Your task to perform on an android device: change keyboard looks Image 0: 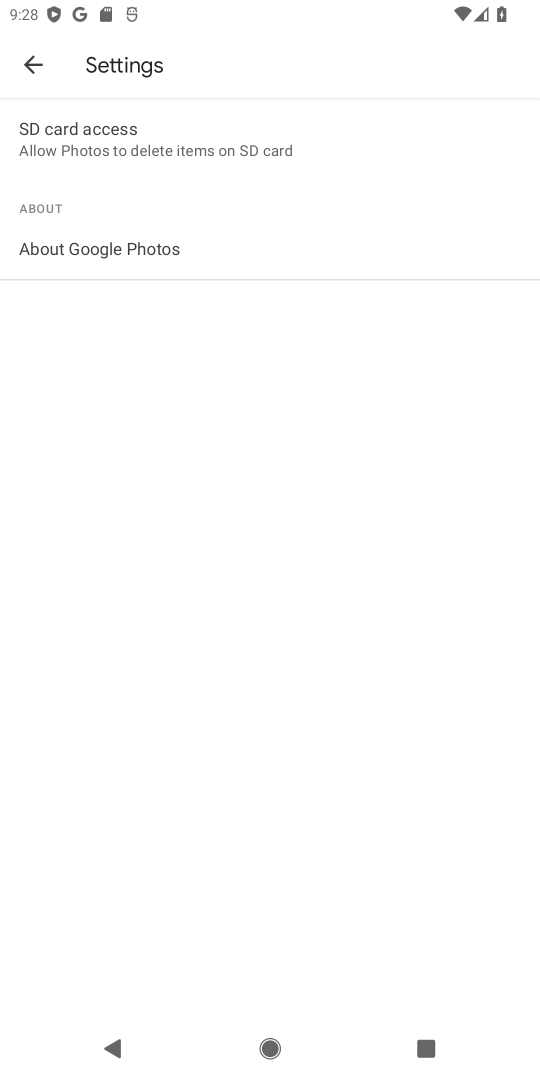
Step 0: press home button
Your task to perform on an android device: change keyboard looks Image 1: 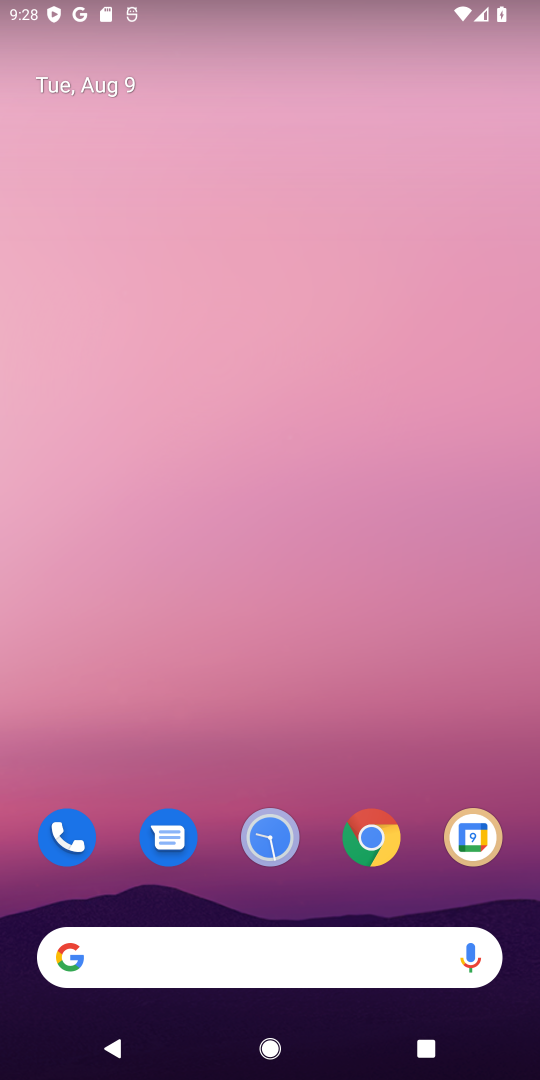
Step 1: drag from (298, 900) to (202, 97)
Your task to perform on an android device: change keyboard looks Image 2: 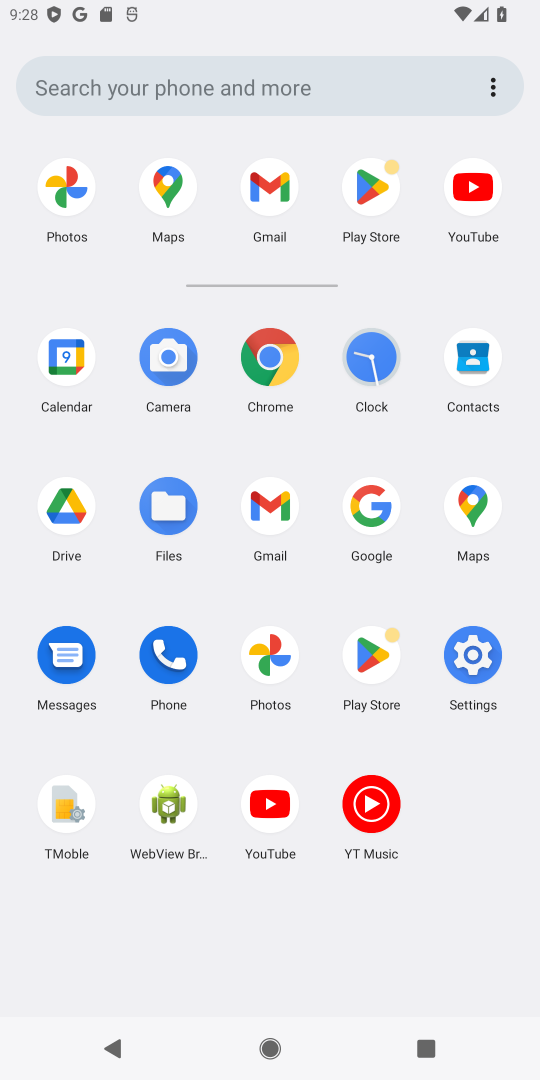
Step 2: click (466, 655)
Your task to perform on an android device: change keyboard looks Image 3: 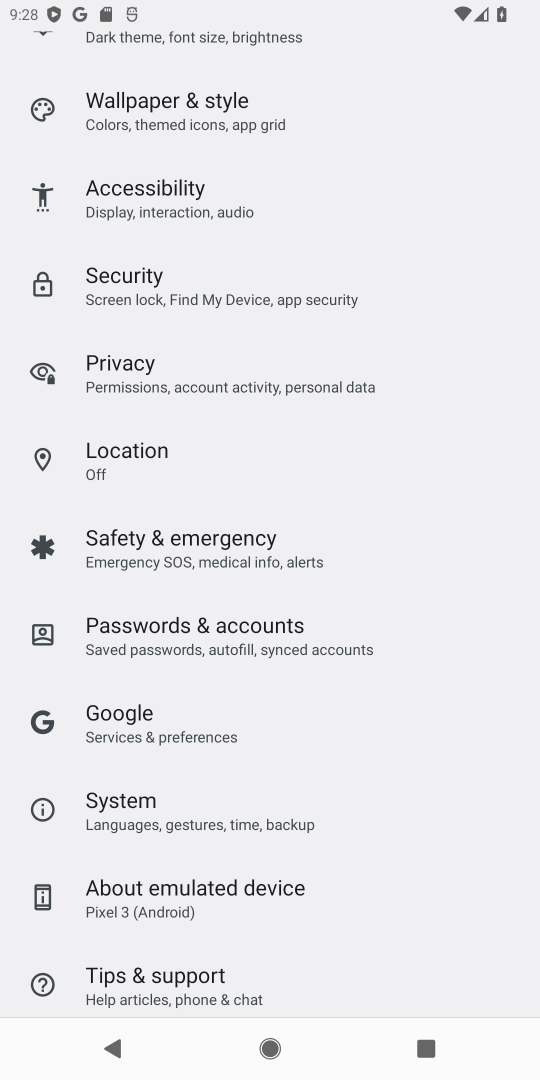
Step 3: drag from (185, 874) to (185, 537)
Your task to perform on an android device: change keyboard looks Image 4: 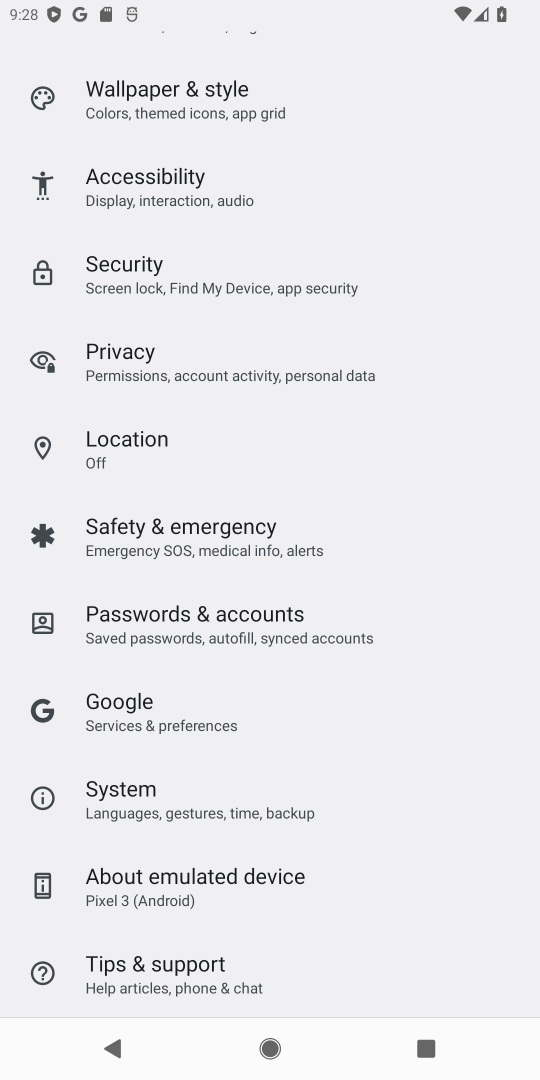
Step 4: click (147, 790)
Your task to perform on an android device: change keyboard looks Image 5: 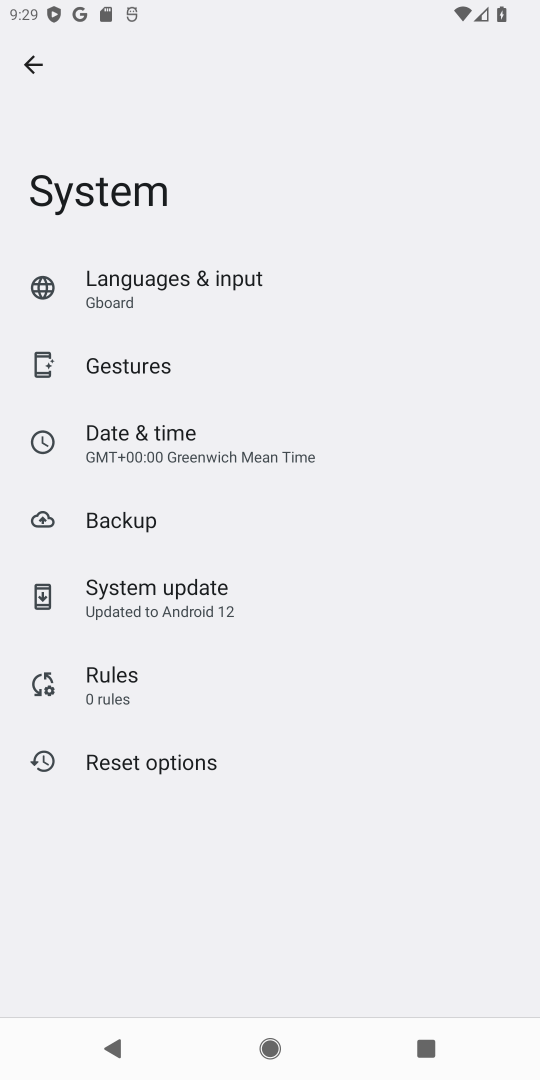
Step 5: click (99, 278)
Your task to perform on an android device: change keyboard looks Image 6: 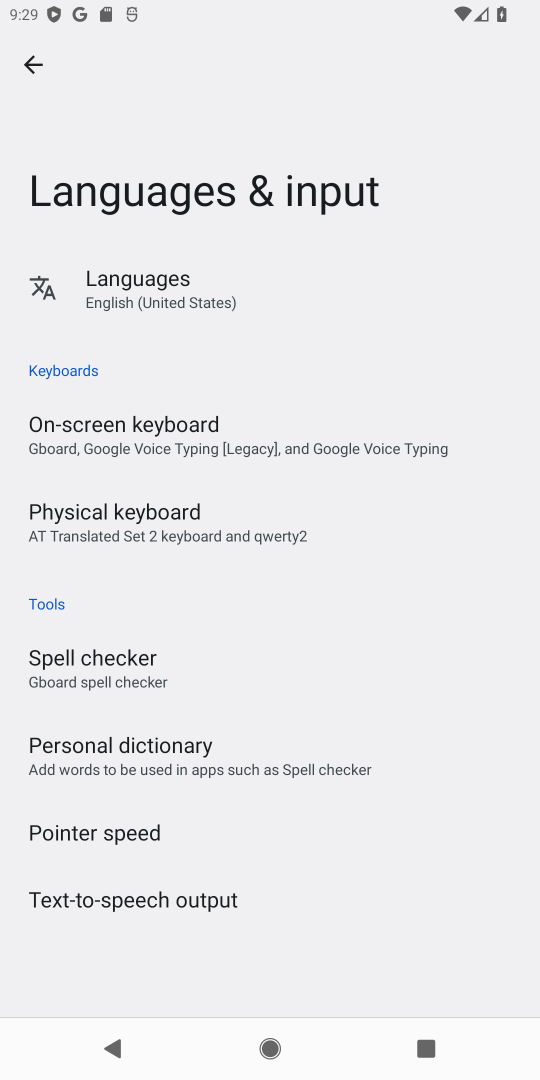
Step 6: click (119, 438)
Your task to perform on an android device: change keyboard looks Image 7: 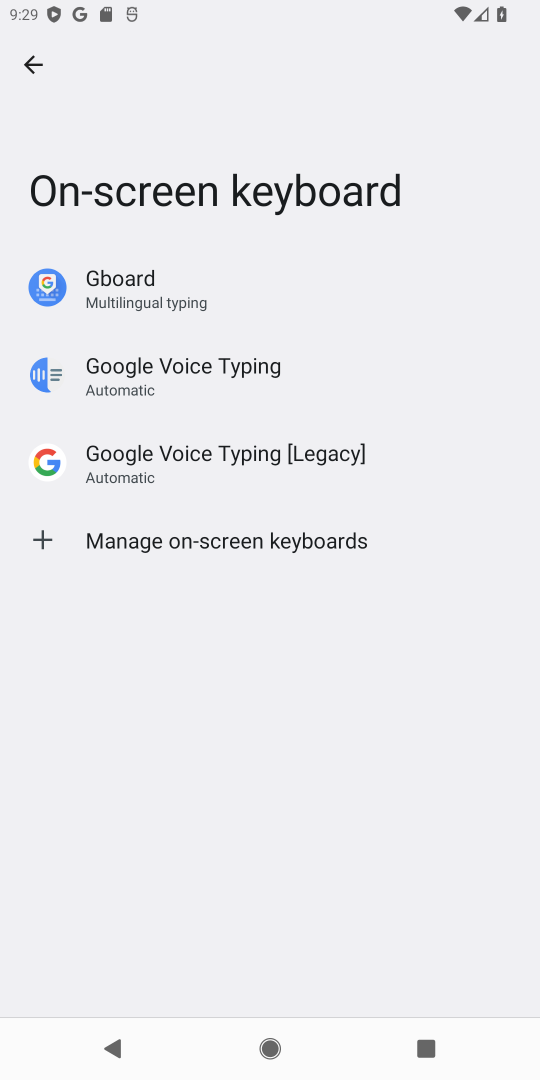
Step 7: click (133, 292)
Your task to perform on an android device: change keyboard looks Image 8: 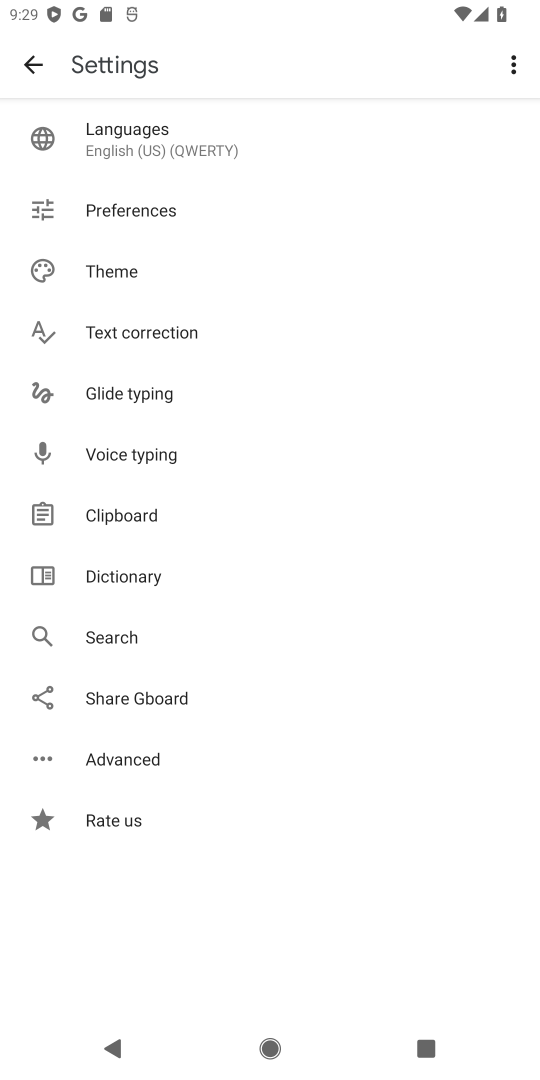
Step 8: click (117, 265)
Your task to perform on an android device: change keyboard looks Image 9: 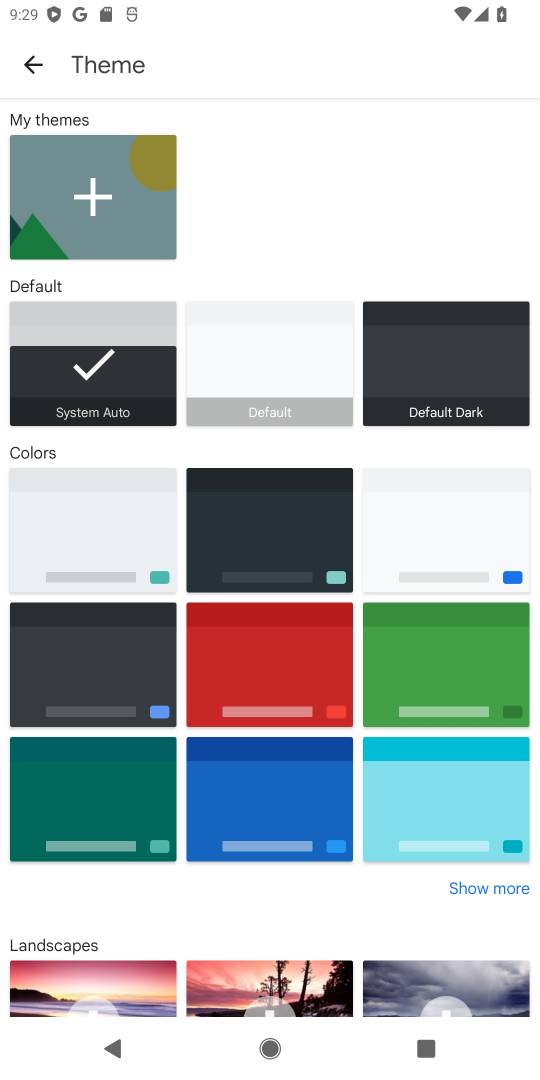
Step 9: click (436, 389)
Your task to perform on an android device: change keyboard looks Image 10: 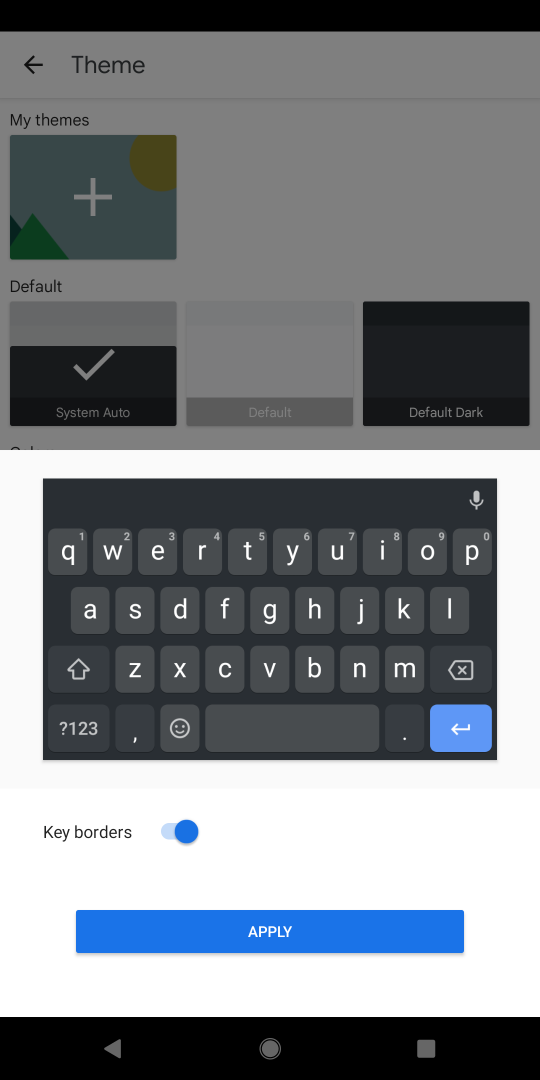
Step 10: click (254, 928)
Your task to perform on an android device: change keyboard looks Image 11: 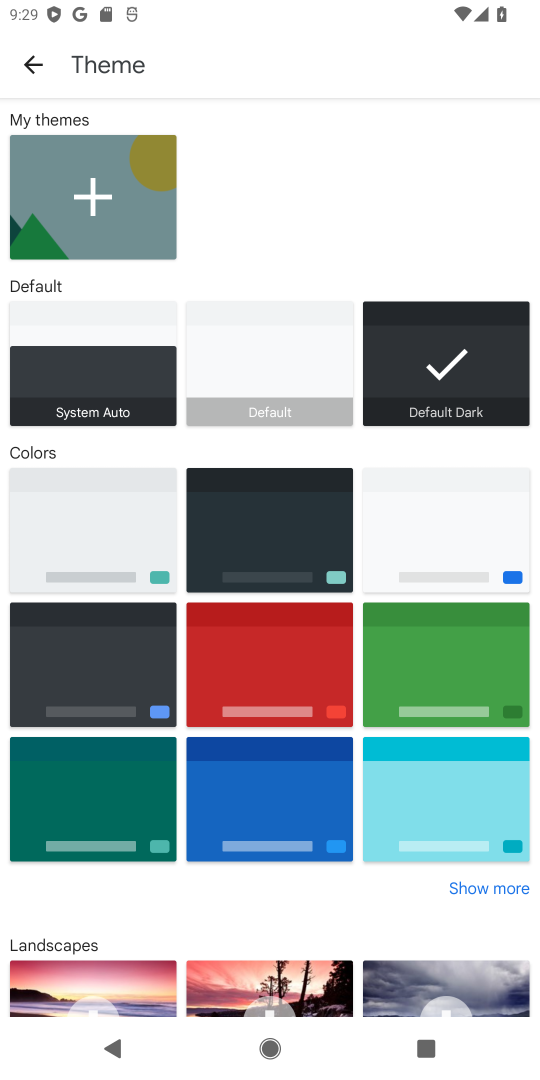
Step 11: task complete